Your task to perform on an android device: Open Wikipedia Image 0: 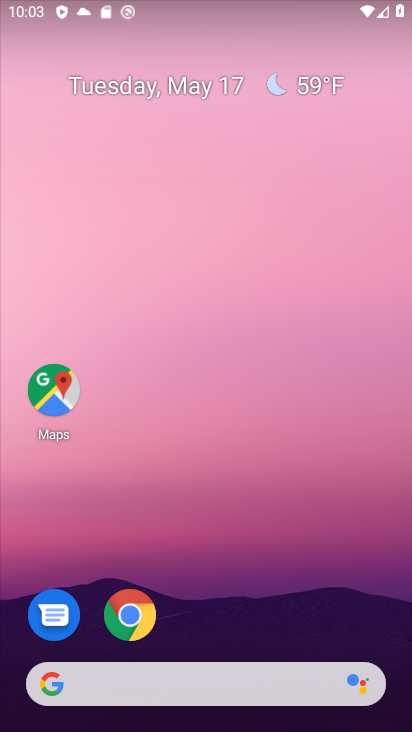
Step 0: drag from (226, 626) to (201, 406)
Your task to perform on an android device: Open Wikipedia Image 1: 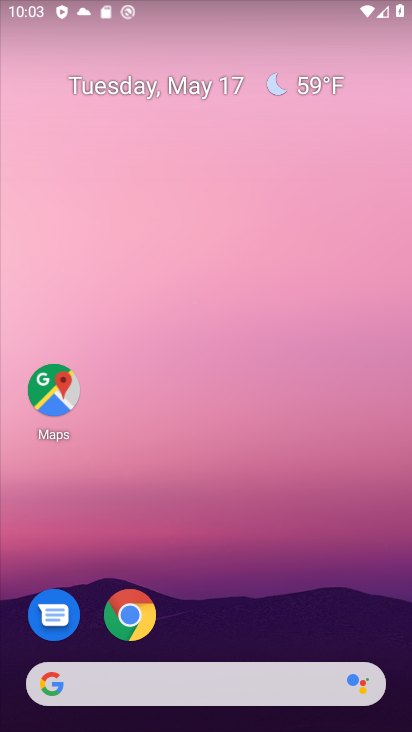
Step 1: drag from (260, 576) to (210, 133)
Your task to perform on an android device: Open Wikipedia Image 2: 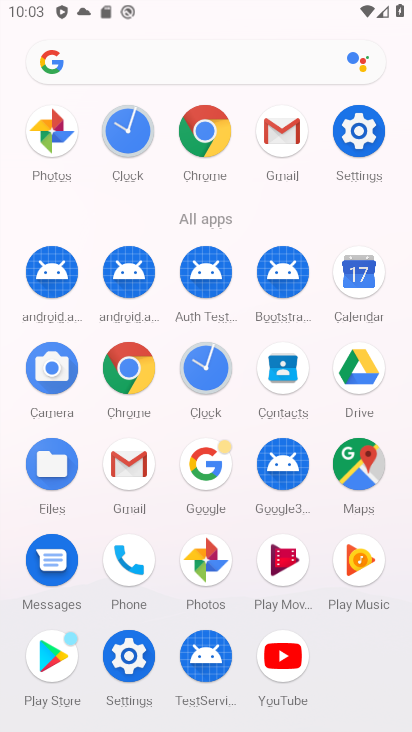
Step 2: click (210, 176)
Your task to perform on an android device: Open Wikipedia Image 3: 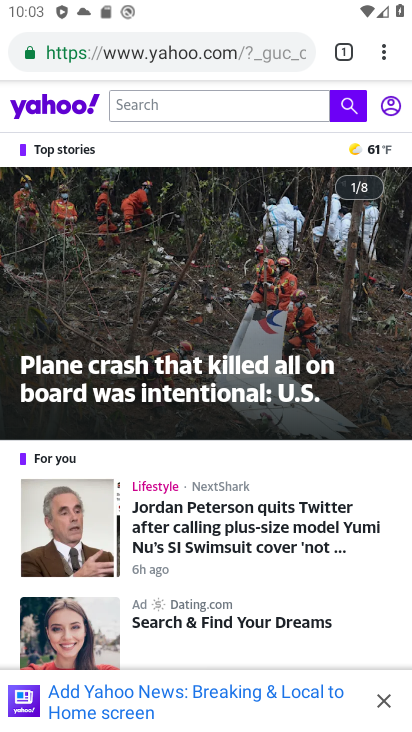
Step 3: press back button
Your task to perform on an android device: Open Wikipedia Image 4: 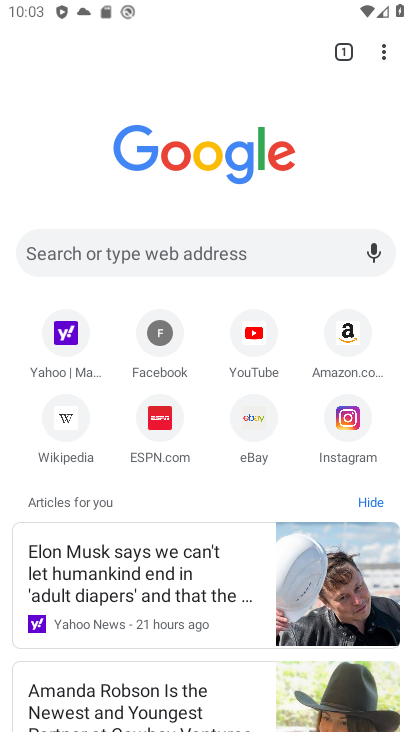
Step 4: click (61, 437)
Your task to perform on an android device: Open Wikipedia Image 5: 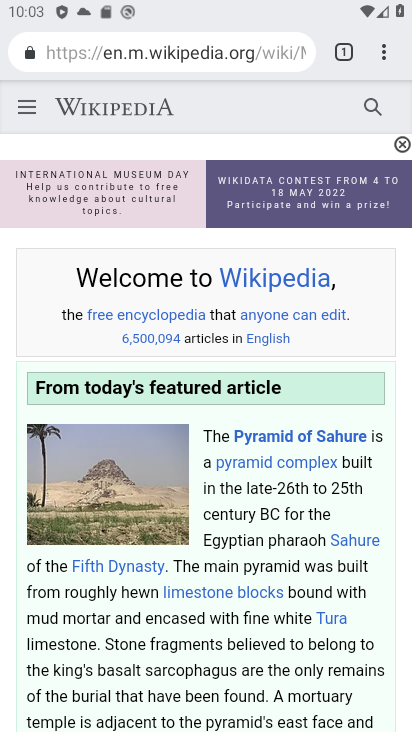
Step 5: task complete